Your task to perform on an android device: see sites visited before in the chrome app Image 0: 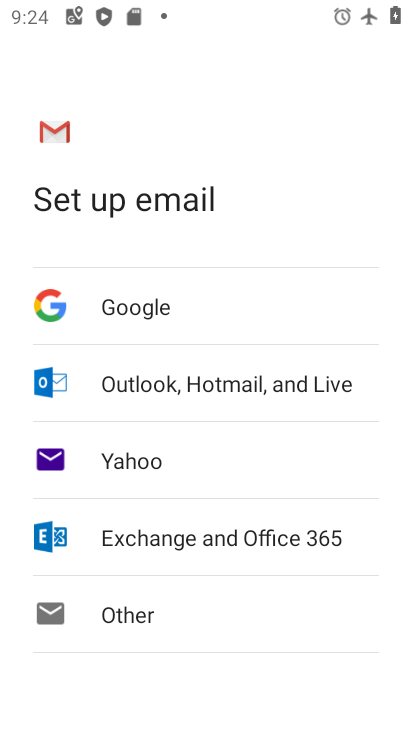
Step 0: press home button
Your task to perform on an android device: see sites visited before in the chrome app Image 1: 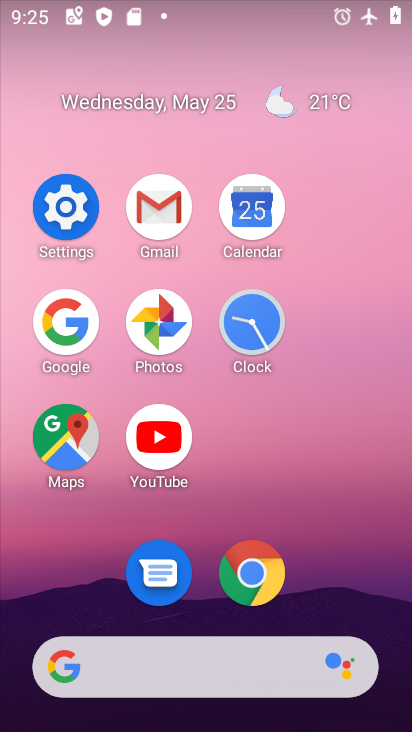
Step 1: click (272, 562)
Your task to perform on an android device: see sites visited before in the chrome app Image 2: 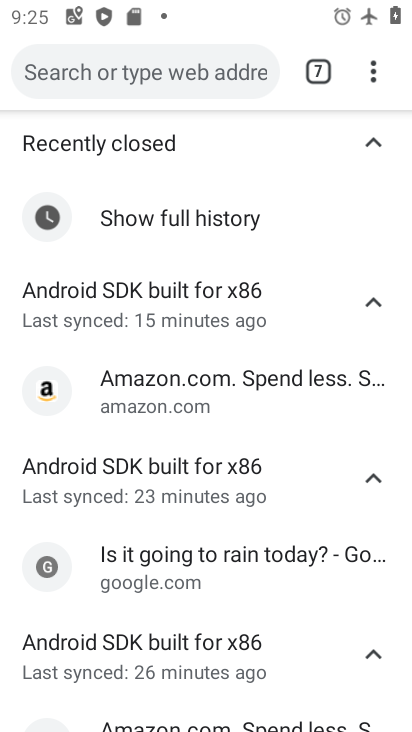
Step 2: task complete